Your task to perform on an android device: snooze an email in the gmail app Image 0: 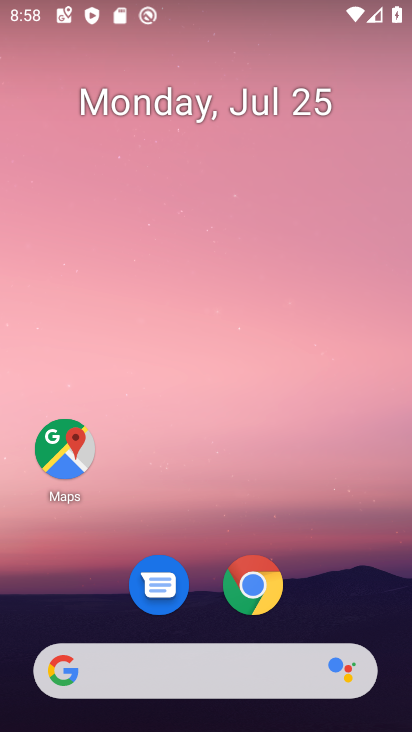
Step 0: drag from (209, 668) to (384, 49)
Your task to perform on an android device: snooze an email in the gmail app Image 1: 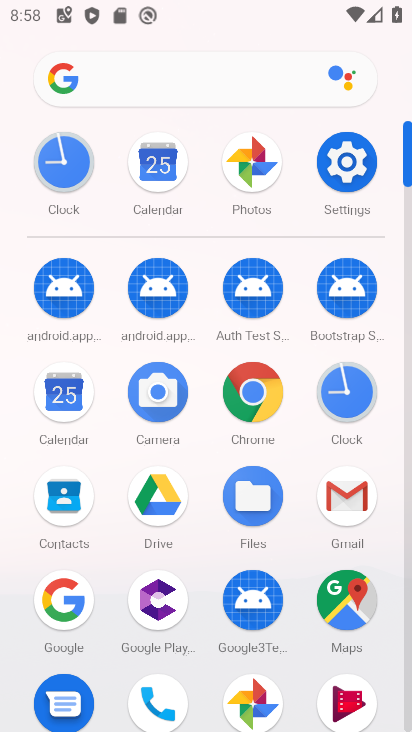
Step 1: click (340, 492)
Your task to perform on an android device: snooze an email in the gmail app Image 2: 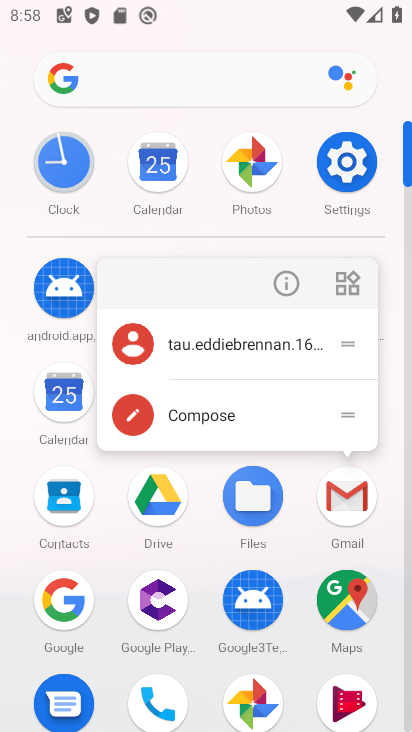
Step 2: click (349, 503)
Your task to perform on an android device: snooze an email in the gmail app Image 3: 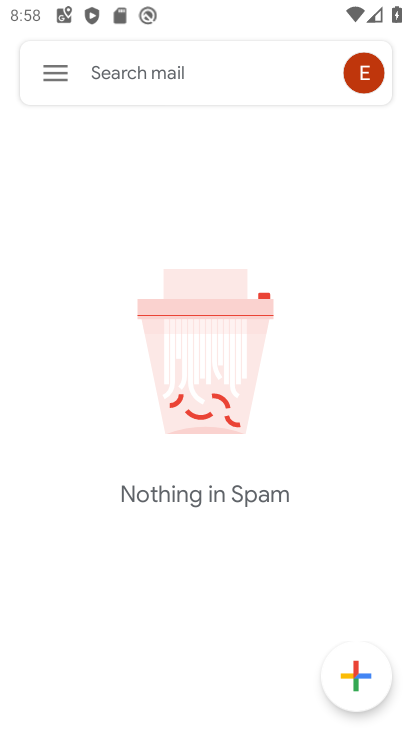
Step 3: click (62, 67)
Your task to perform on an android device: snooze an email in the gmail app Image 4: 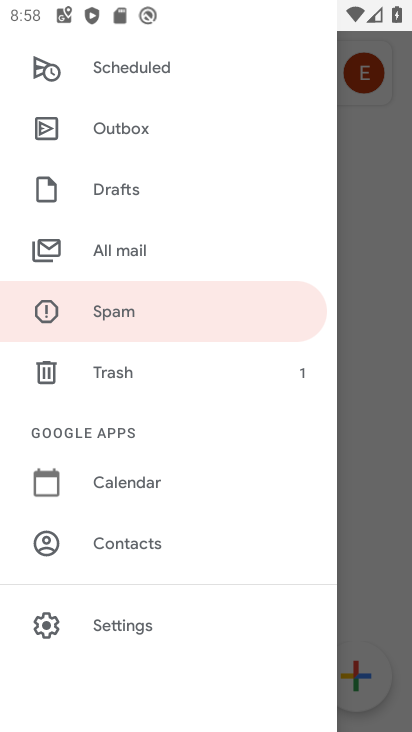
Step 4: click (147, 254)
Your task to perform on an android device: snooze an email in the gmail app Image 5: 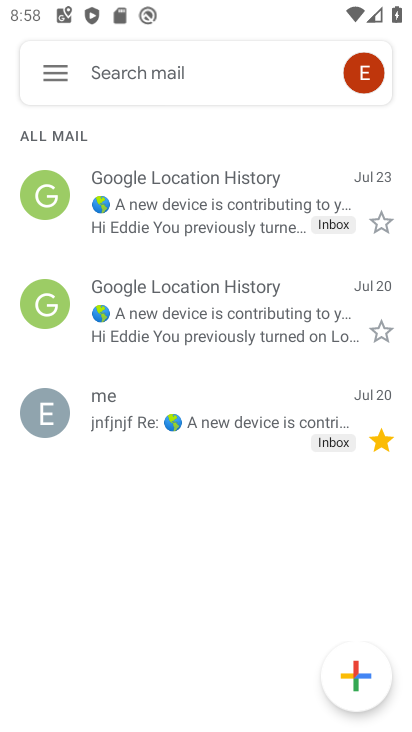
Step 5: click (54, 197)
Your task to perform on an android device: snooze an email in the gmail app Image 6: 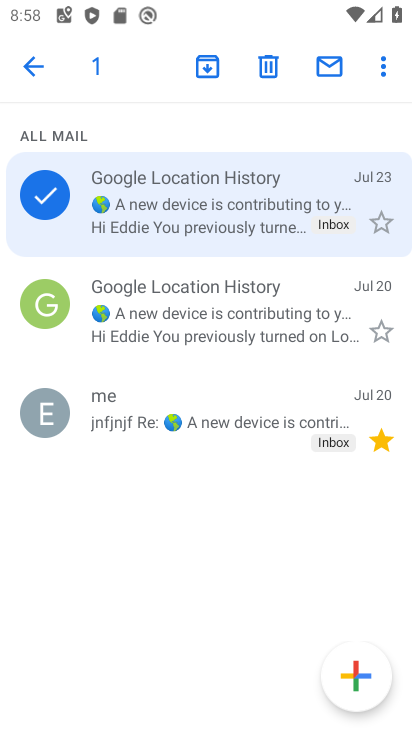
Step 6: click (380, 66)
Your task to perform on an android device: snooze an email in the gmail app Image 7: 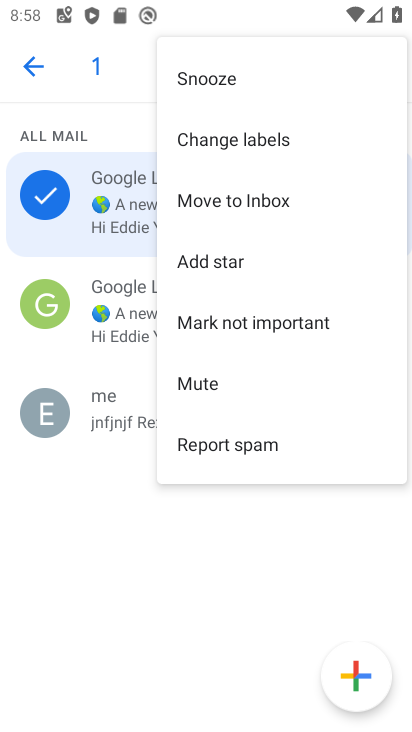
Step 7: click (229, 78)
Your task to perform on an android device: snooze an email in the gmail app Image 8: 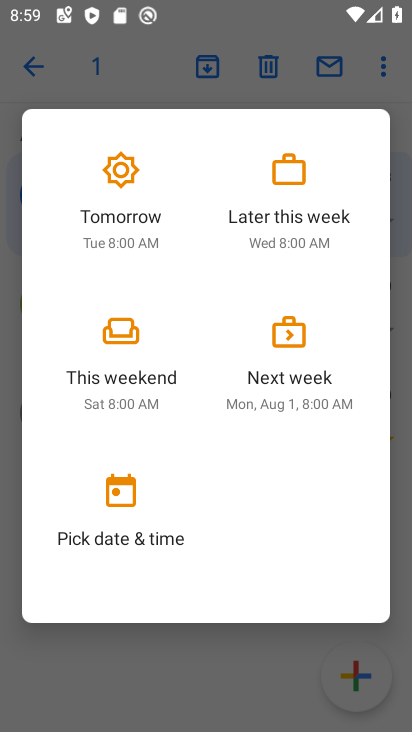
Step 8: click (137, 234)
Your task to perform on an android device: snooze an email in the gmail app Image 9: 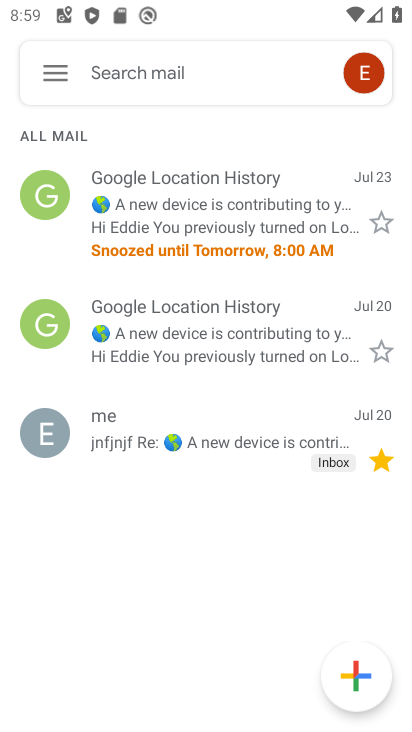
Step 9: task complete